Your task to perform on an android device: open a new tab in the chrome app Image 0: 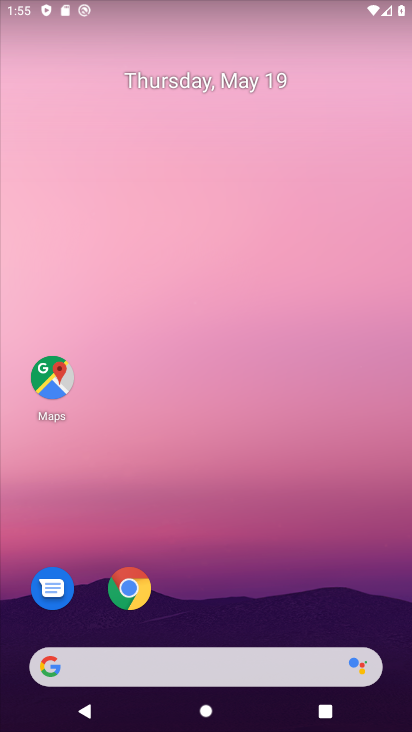
Step 0: click (135, 587)
Your task to perform on an android device: open a new tab in the chrome app Image 1: 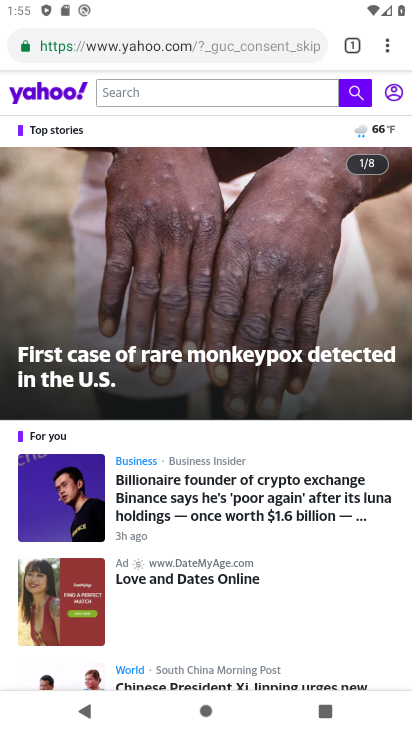
Step 1: task complete